Your task to perform on an android device: turn off data saver in the chrome app Image 0: 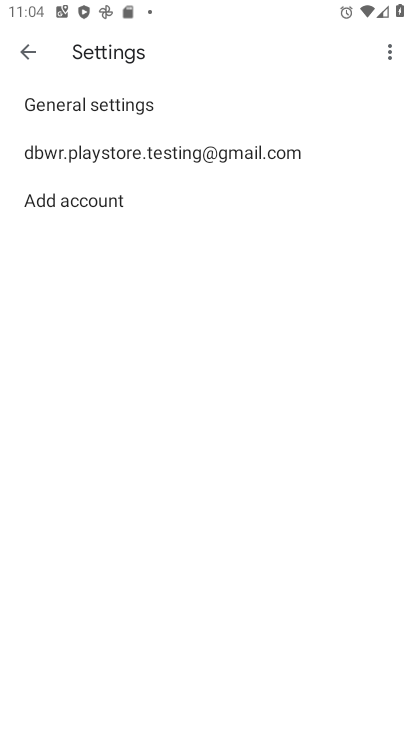
Step 0: press home button
Your task to perform on an android device: turn off data saver in the chrome app Image 1: 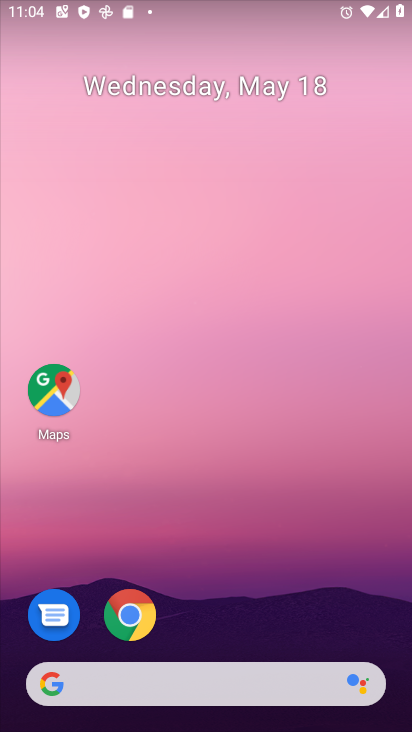
Step 1: click (143, 606)
Your task to perform on an android device: turn off data saver in the chrome app Image 2: 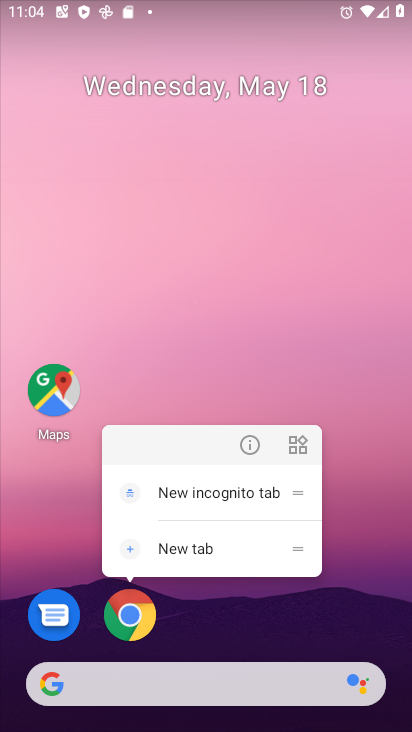
Step 2: click (142, 605)
Your task to perform on an android device: turn off data saver in the chrome app Image 3: 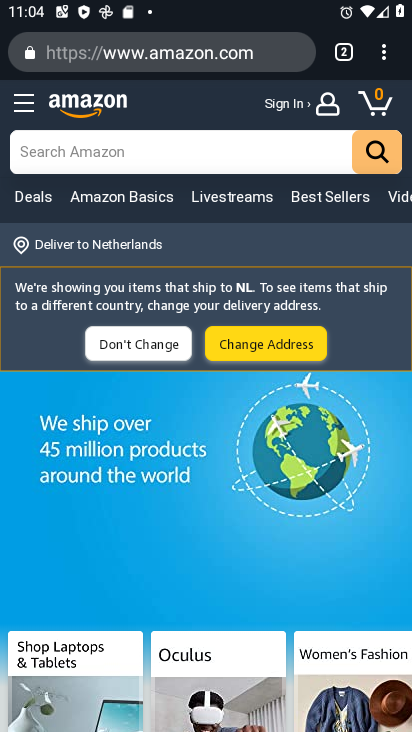
Step 3: click (384, 64)
Your task to perform on an android device: turn off data saver in the chrome app Image 4: 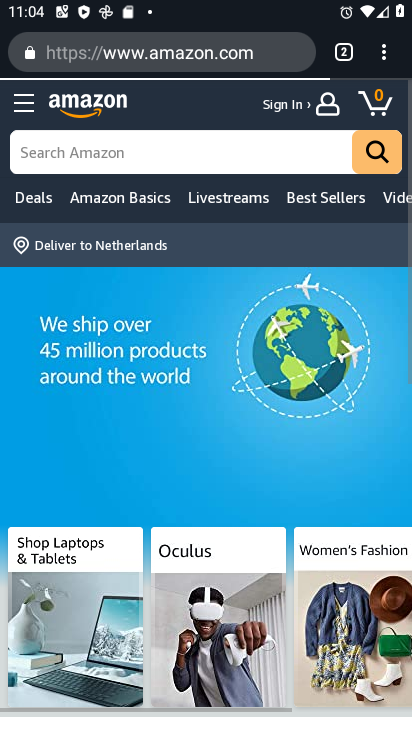
Step 4: click (385, 53)
Your task to perform on an android device: turn off data saver in the chrome app Image 5: 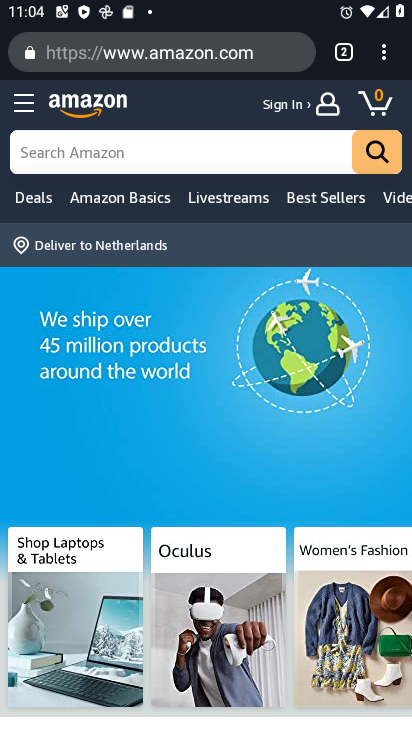
Step 5: click (385, 53)
Your task to perform on an android device: turn off data saver in the chrome app Image 6: 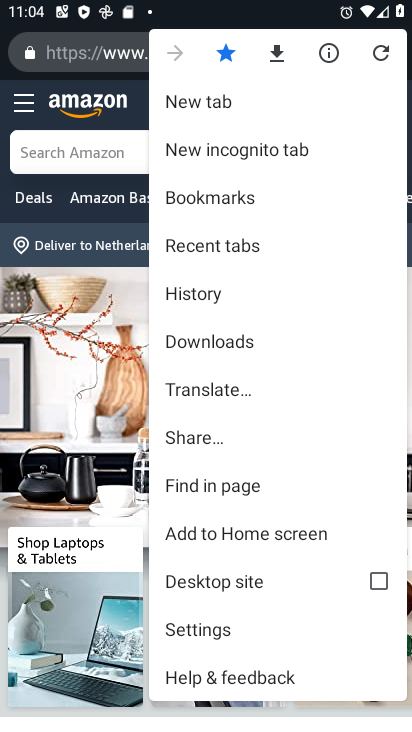
Step 6: click (213, 624)
Your task to perform on an android device: turn off data saver in the chrome app Image 7: 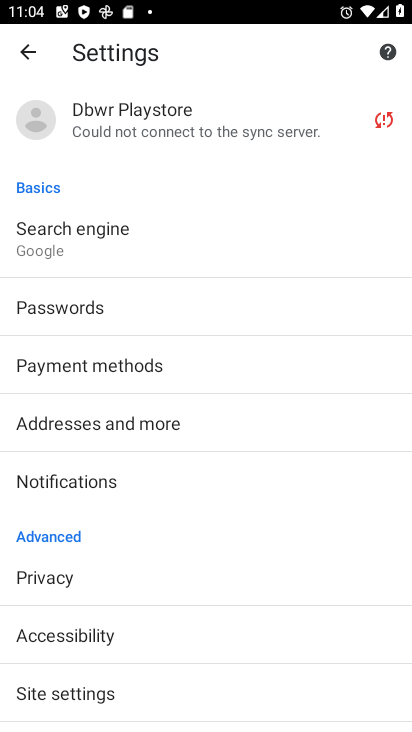
Step 7: click (75, 689)
Your task to perform on an android device: turn off data saver in the chrome app Image 8: 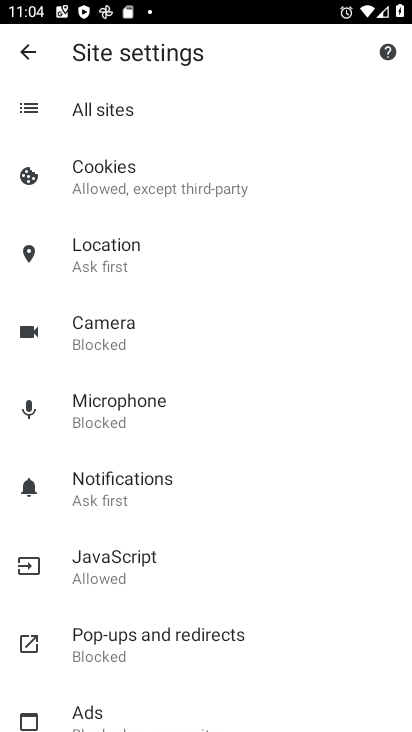
Step 8: click (28, 27)
Your task to perform on an android device: turn off data saver in the chrome app Image 9: 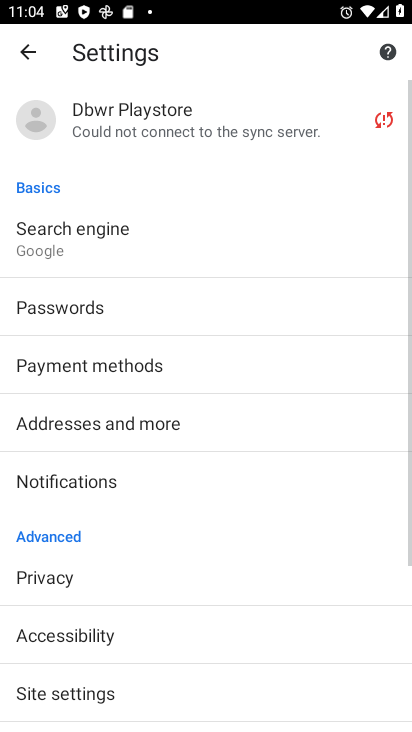
Step 9: drag from (111, 703) to (108, 316)
Your task to perform on an android device: turn off data saver in the chrome app Image 10: 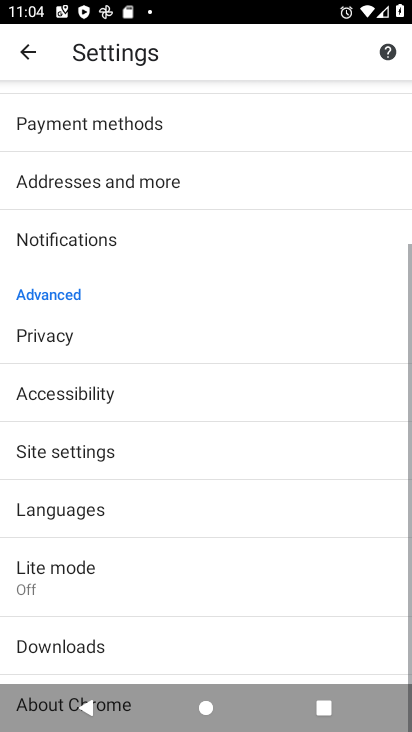
Step 10: click (55, 559)
Your task to perform on an android device: turn off data saver in the chrome app Image 11: 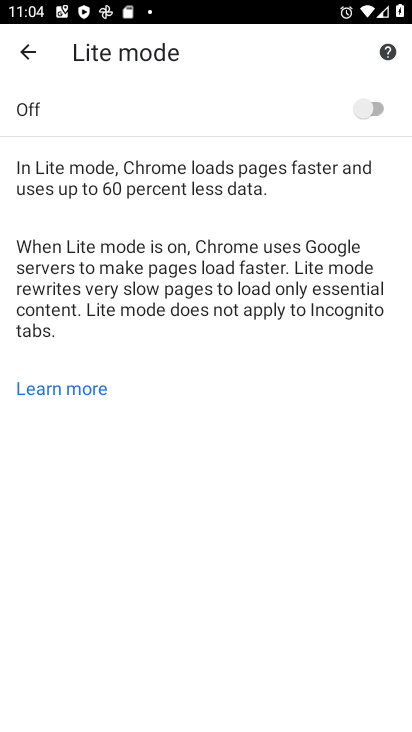
Step 11: task complete